Your task to perform on an android device: toggle wifi Image 0: 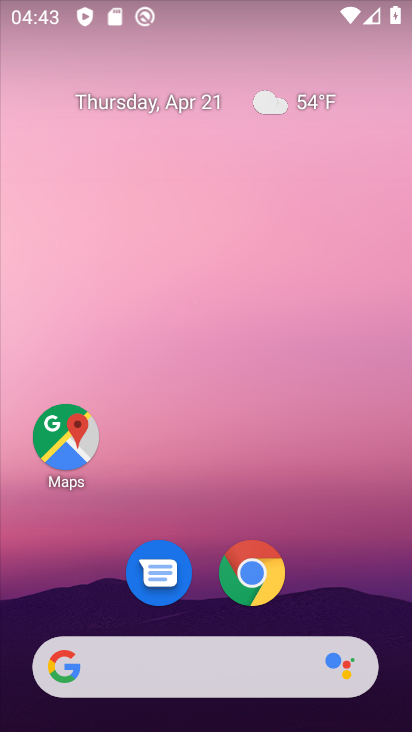
Step 0: drag from (347, 578) to (233, 62)
Your task to perform on an android device: toggle wifi Image 1: 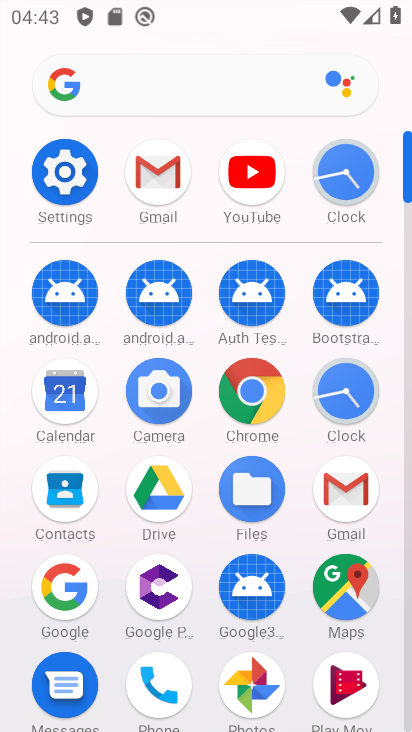
Step 1: click (406, 679)
Your task to perform on an android device: toggle wifi Image 2: 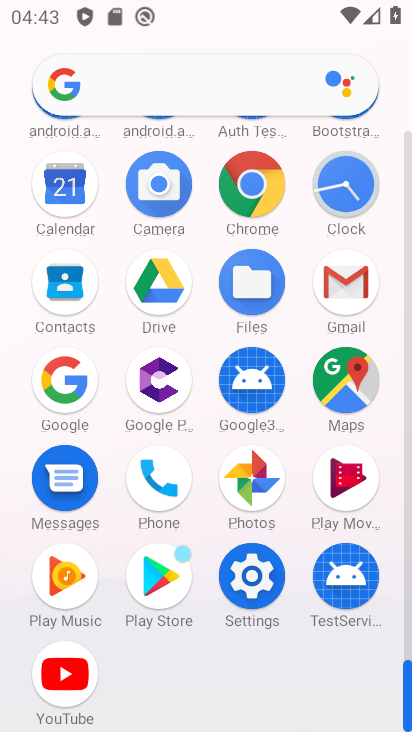
Step 2: click (246, 572)
Your task to perform on an android device: toggle wifi Image 3: 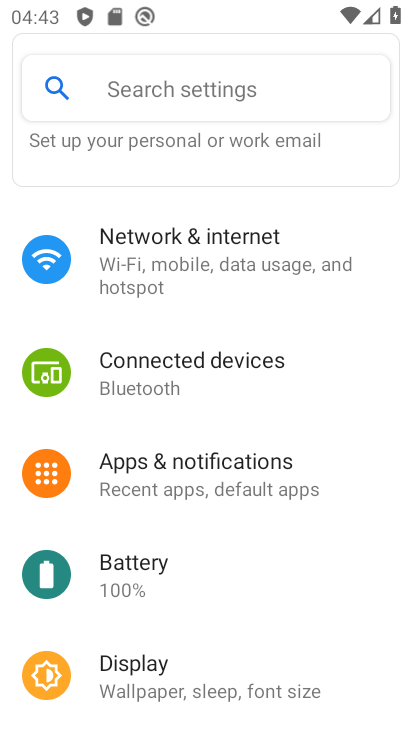
Step 3: click (150, 248)
Your task to perform on an android device: toggle wifi Image 4: 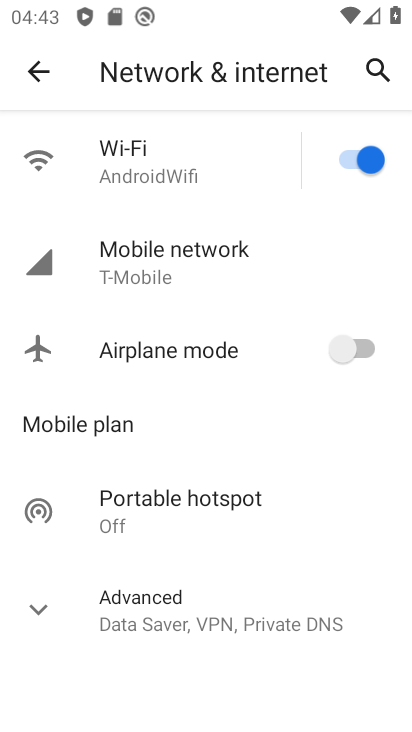
Step 4: click (334, 157)
Your task to perform on an android device: toggle wifi Image 5: 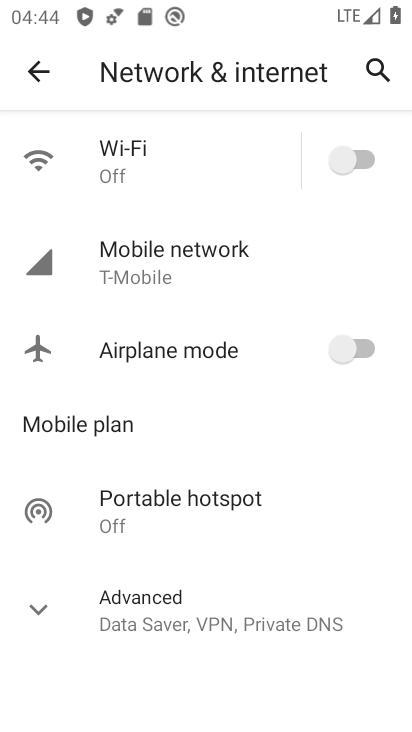
Step 5: task complete